Your task to perform on an android device: uninstall "DuckDuckGo Privacy Browser" Image 0: 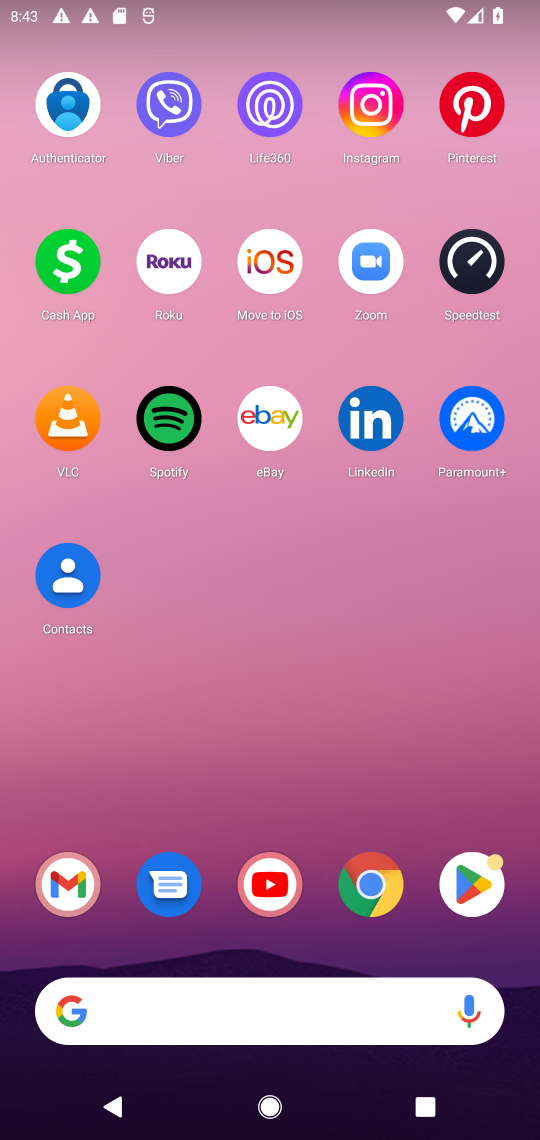
Step 0: press home button
Your task to perform on an android device: uninstall "DuckDuckGo Privacy Browser" Image 1: 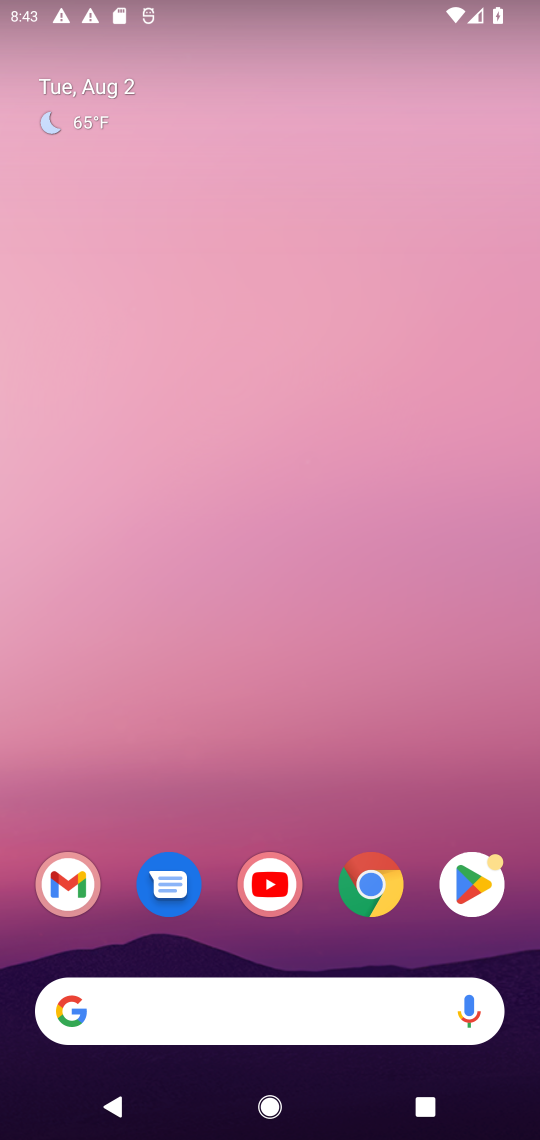
Step 1: click (467, 856)
Your task to perform on an android device: uninstall "DuckDuckGo Privacy Browser" Image 2: 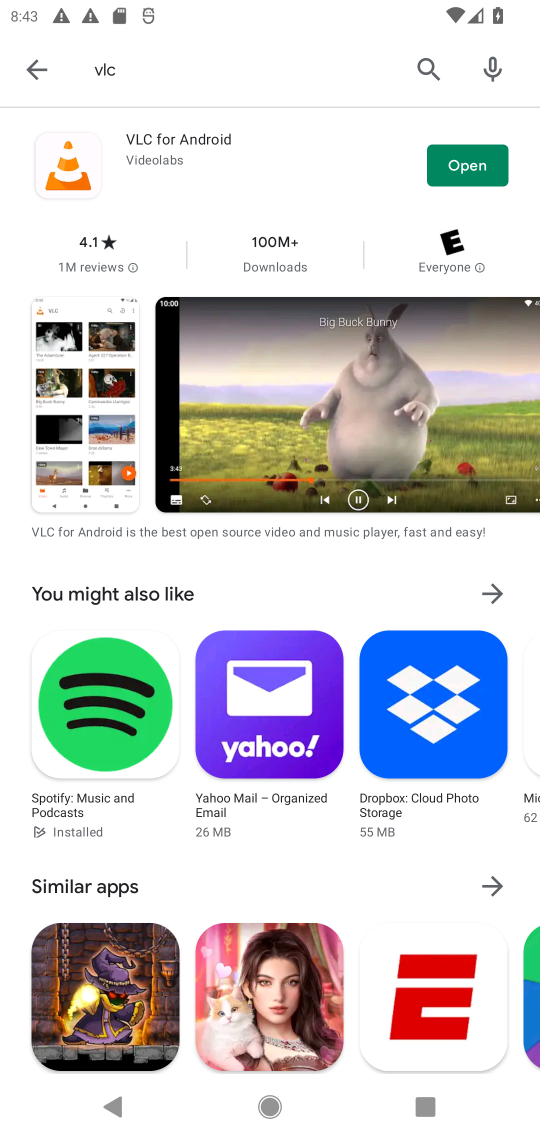
Step 2: click (426, 69)
Your task to perform on an android device: uninstall "DuckDuckGo Privacy Browser" Image 3: 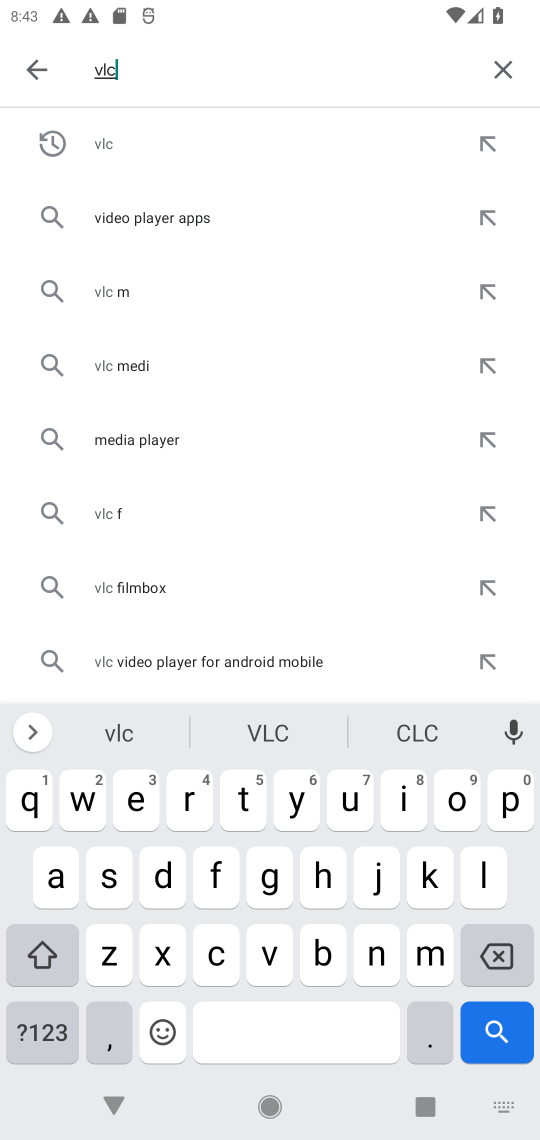
Step 3: click (508, 70)
Your task to perform on an android device: uninstall "DuckDuckGo Privacy Browser" Image 4: 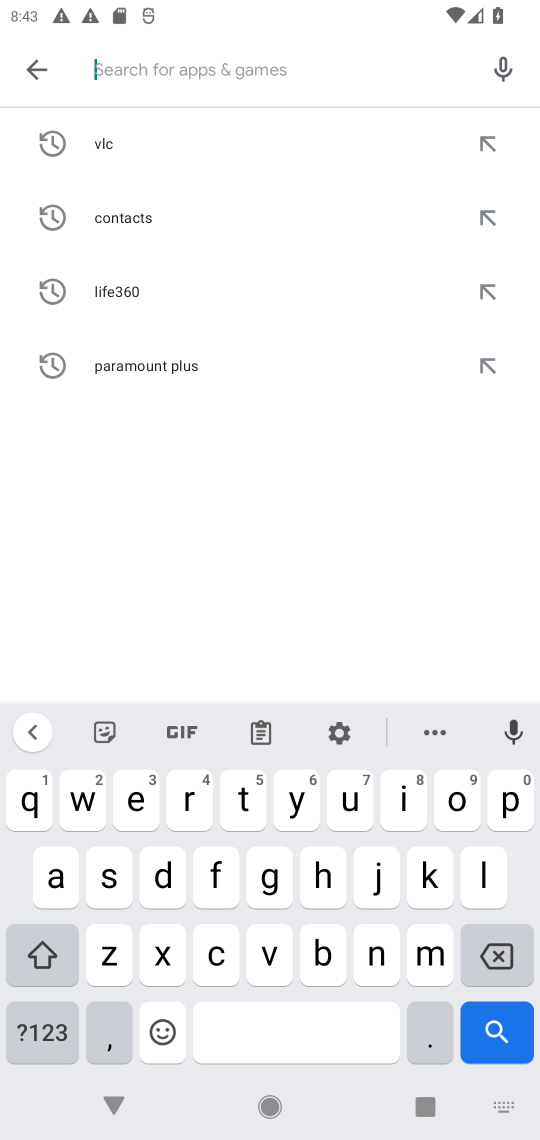
Step 4: click (147, 870)
Your task to perform on an android device: uninstall "DuckDuckGo Privacy Browser" Image 5: 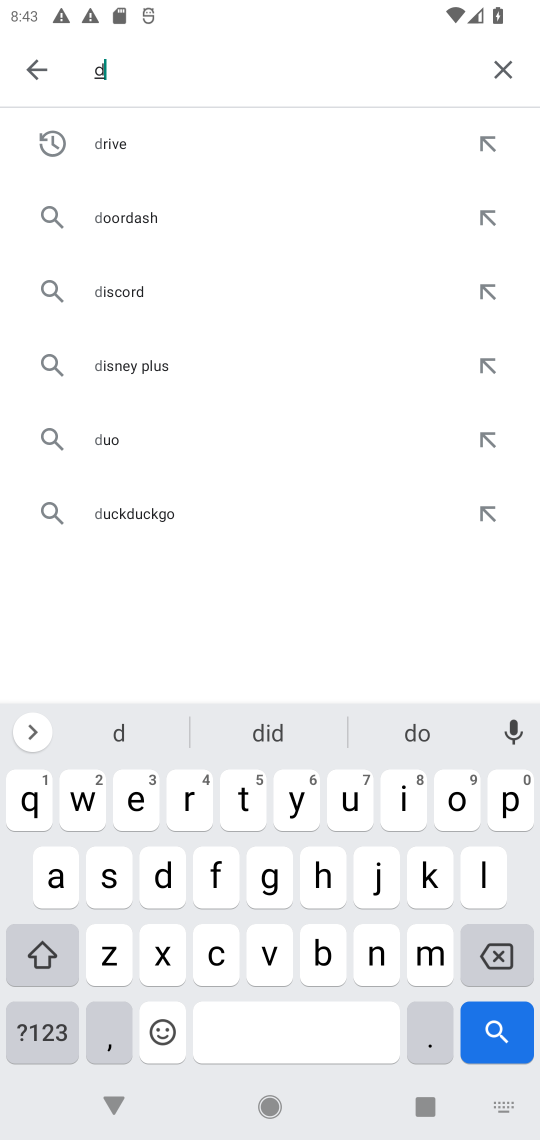
Step 5: click (340, 806)
Your task to perform on an android device: uninstall "DuckDuckGo Privacy Browser" Image 6: 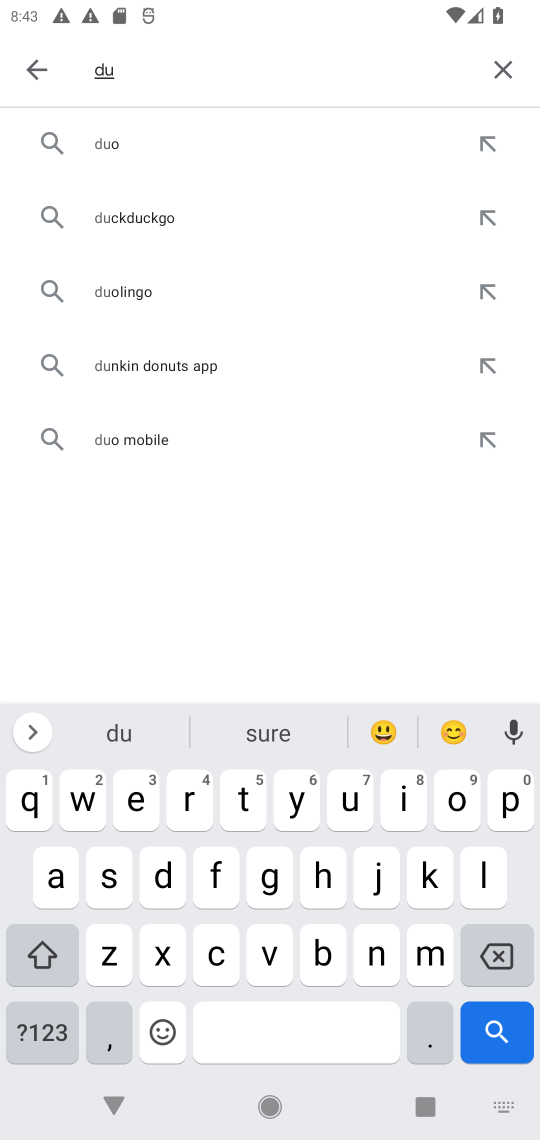
Step 6: click (204, 958)
Your task to perform on an android device: uninstall "DuckDuckGo Privacy Browser" Image 7: 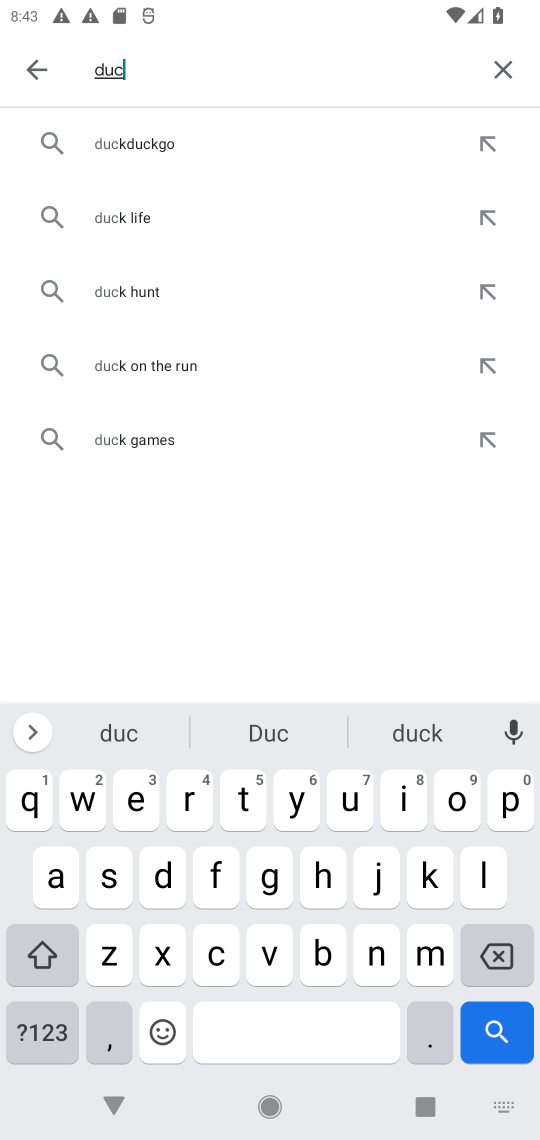
Step 7: click (146, 153)
Your task to perform on an android device: uninstall "DuckDuckGo Privacy Browser" Image 8: 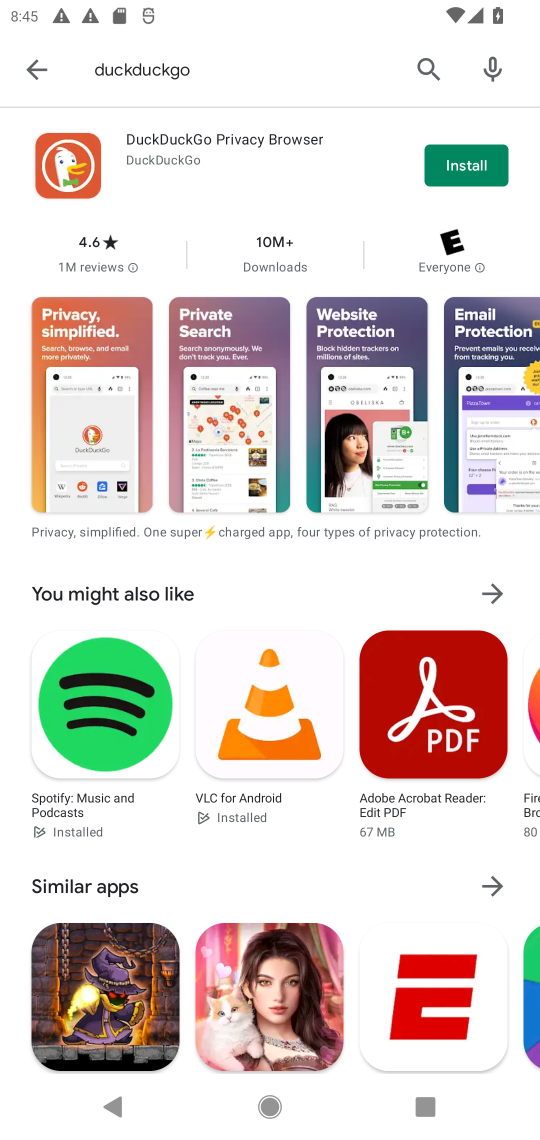
Step 8: task complete